Your task to perform on an android device: Search for vegetarian restaurants on Maps Image 0: 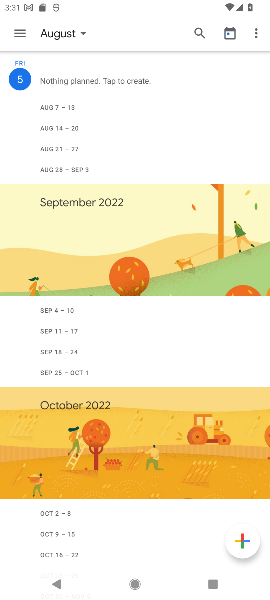
Step 0: press home button
Your task to perform on an android device: Search for vegetarian restaurants on Maps Image 1: 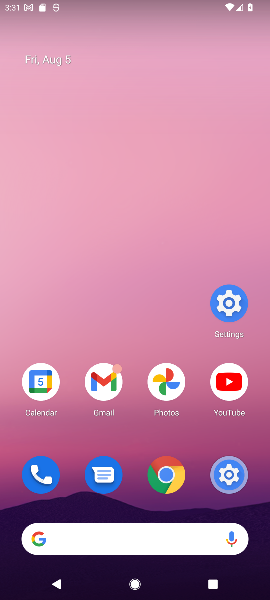
Step 1: drag from (250, 559) to (201, 140)
Your task to perform on an android device: Search for vegetarian restaurants on Maps Image 2: 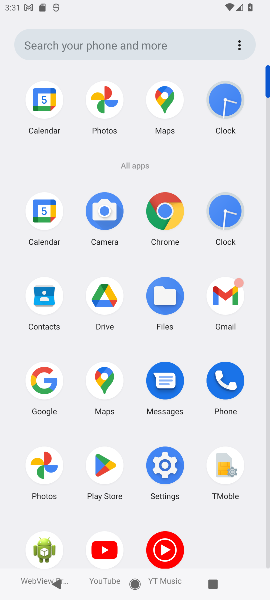
Step 2: drag from (102, 380) to (162, 287)
Your task to perform on an android device: Search for vegetarian restaurants on Maps Image 3: 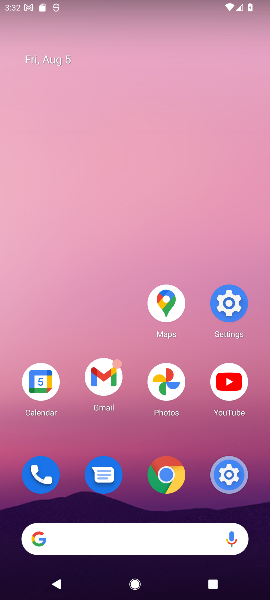
Step 3: click (157, 301)
Your task to perform on an android device: Search for vegetarian restaurants on Maps Image 4: 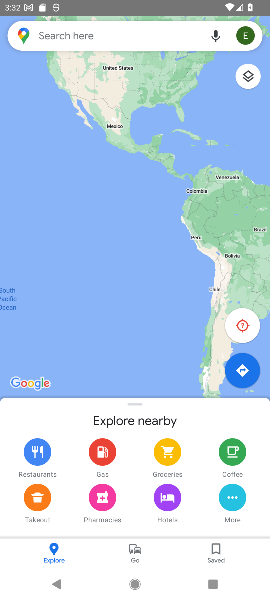
Step 4: click (99, 37)
Your task to perform on an android device: Search for vegetarian restaurants on Maps Image 5: 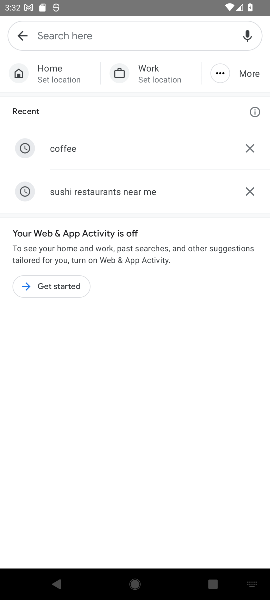
Step 5: type "vegetarian restaurants"
Your task to perform on an android device: Search for vegetarian restaurants on Maps Image 6: 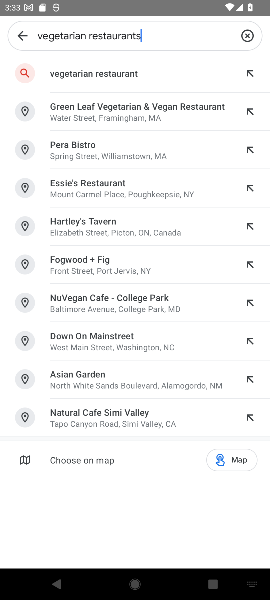
Step 6: click (128, 75)
Your task to perform on an android device: Search for vegetarian restaurants on Maps Image 7: 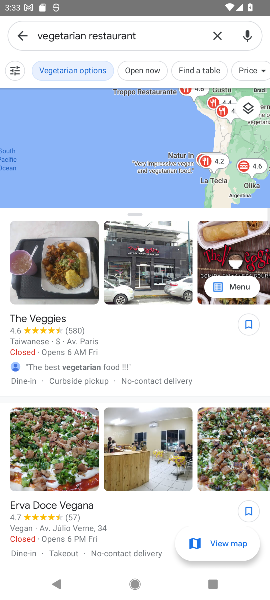
Step 7: task complete